Your task to perform on an android device: What's the weather today? Image 0: 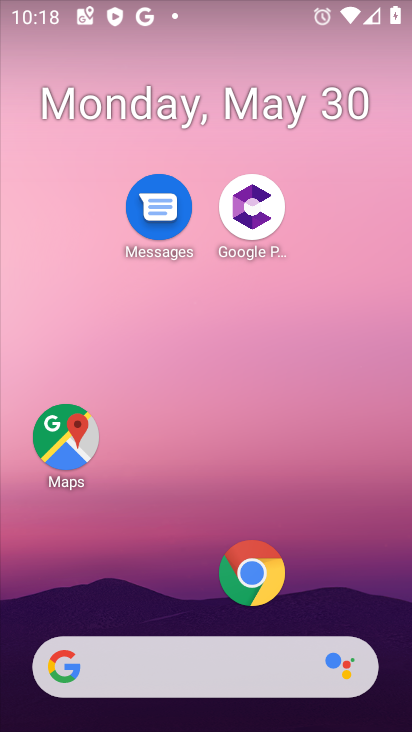
Step 0: drag from (241, 677) to (332, 122)
Your task to perform on an android device: What's the weather today? Image 1: 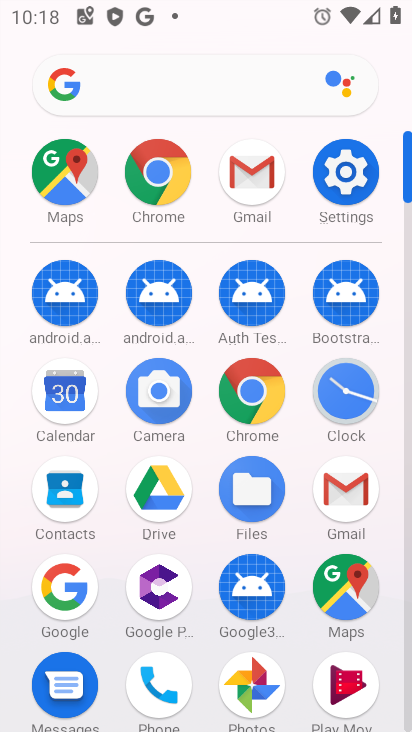
Step 1: click (69, 589)
Your task to perform on an android device: What's the weather today? Image 2: 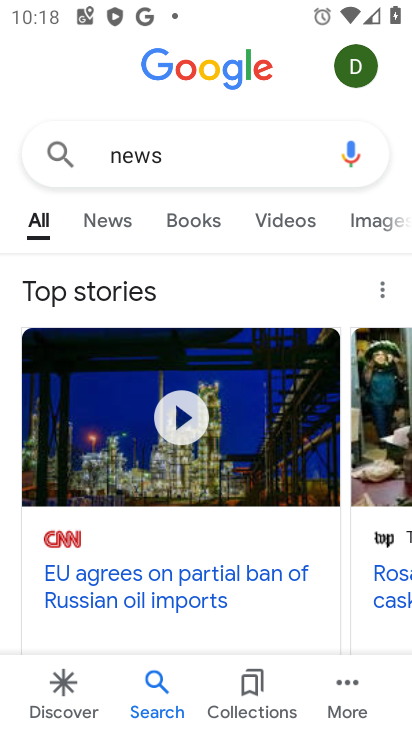
Step 2: click (187, 167)
Your task to perform on an android device: What's the weather today? Image 3: 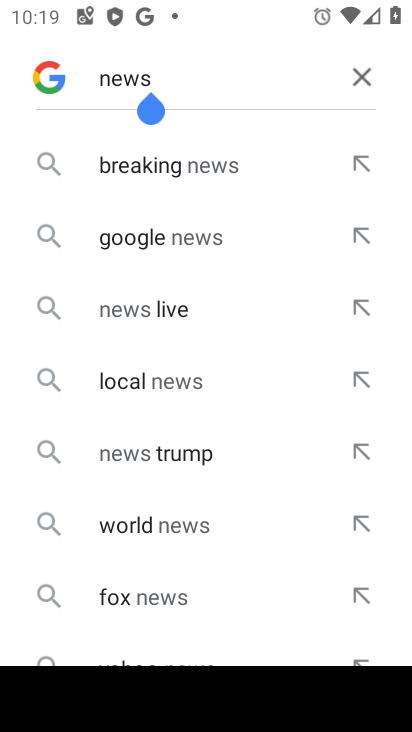
Step 3: click (360, 85)
Your task to perform on an android device: What's the weather today? Image 4: 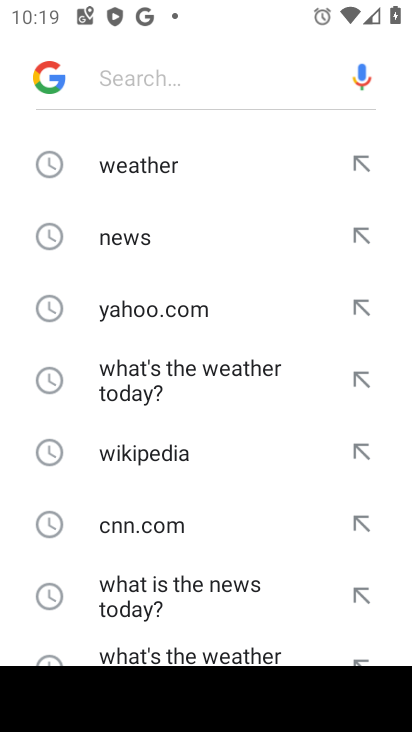
Step 4: click (358, 172)
Your task to perform on an android device: What's the weather today? Image 5: 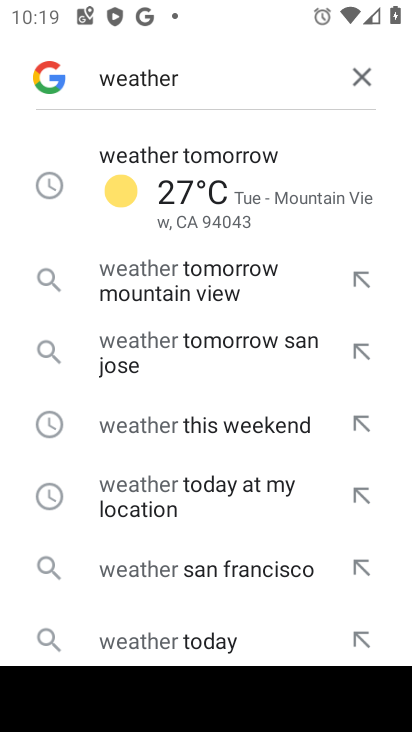
Step 5: click (211, 189)
Your task to perform on an android device: What's the weather today? Image 6: 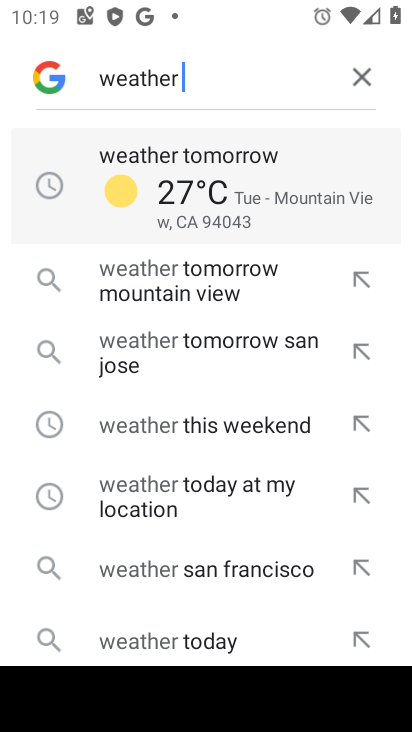
Step 6: click (211, 189)
Your task to perform on an android device: What's the weather today? Image 7: 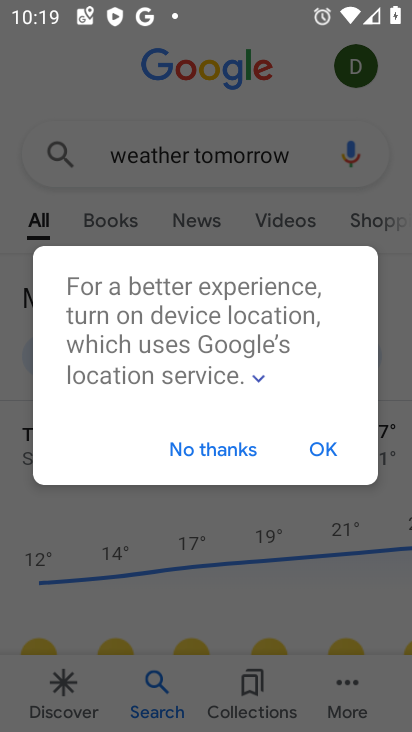
Step 7: click (225, 450)
Your task to perform on an android device: What's the weather today? Image 8: 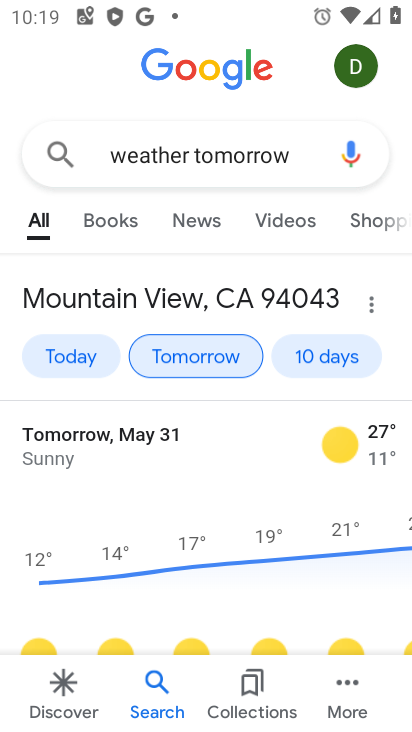
Step 8: click (77, 339)
Your task to perform on an android device: What's the weather today? Image 9: 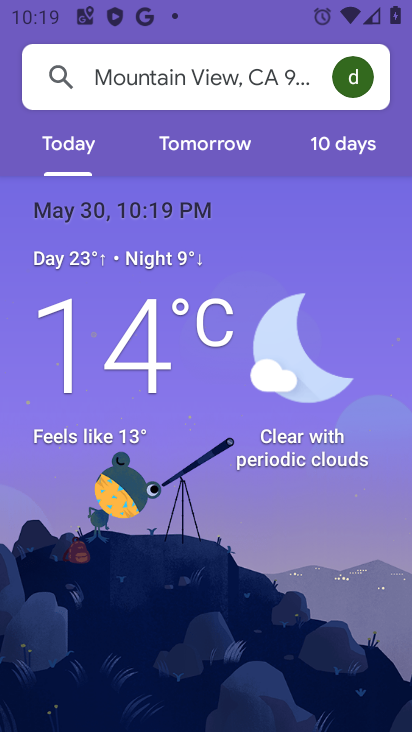
Step 9: task complete